Your task to perform on an android device: turn notification dots on Image 0: 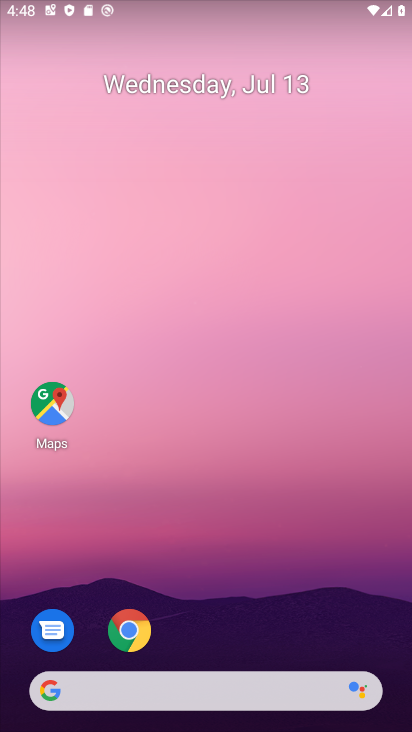
Step 0: drag from (233, 588) to (337, 101)
Your task to perform on an android device: turn notification dots on Image 1: 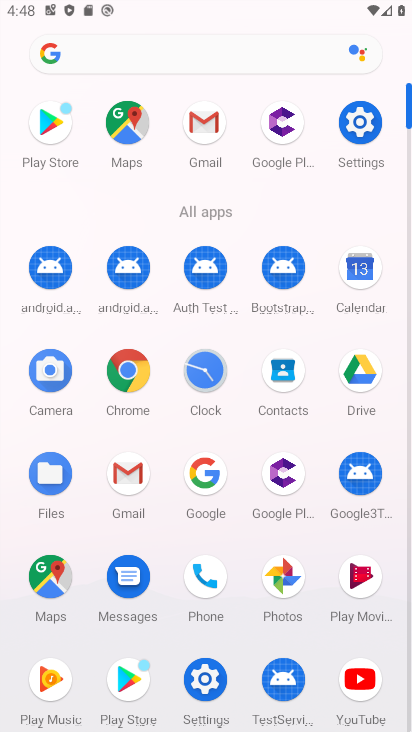
Step 1: click (206, 671)
Your task to perform on an android device: turn notification dots on Image 2: 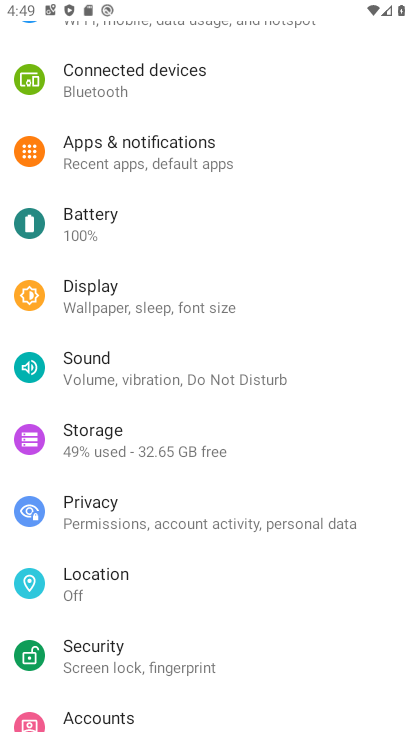
Step 2: click (172, 147)
Your task to perform on an android device: turn notification dots on Image 3: 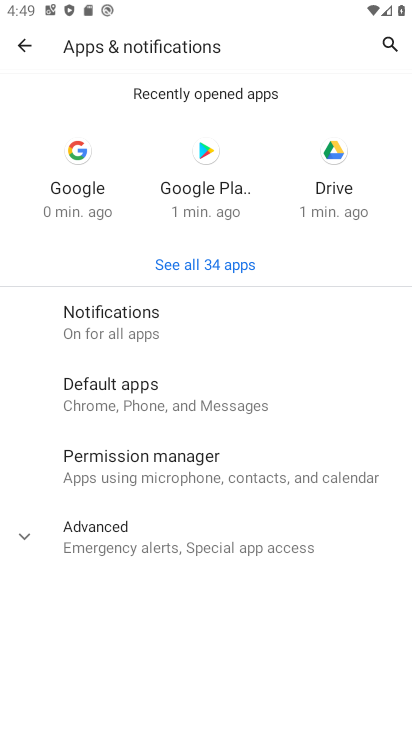
Step 3: click (171, 333)
Your task to perform on an android device: turn notification dots on Image 4: 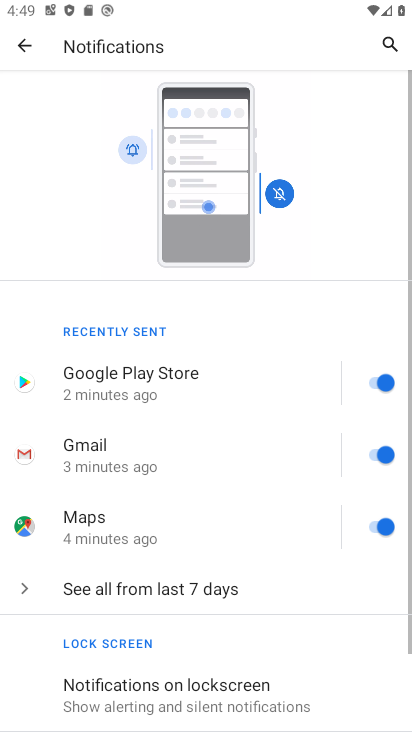
Step 4: drag from (238, 637) to (308, 262)
Your task to perform on an android device: turn notification dots on Image 5: 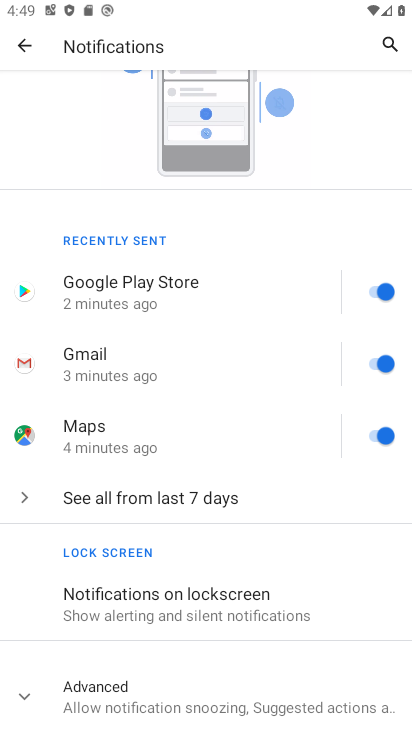
Step 5: click (193, 694)
Your task to perform on an android device: turn notification dots on Image 6: 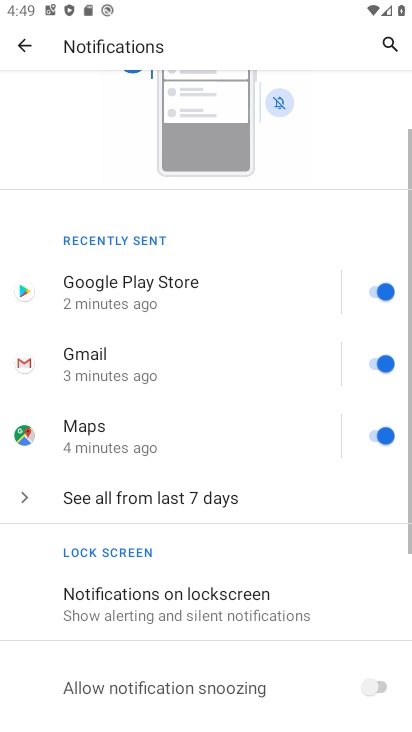
Step 6: task complete